Your task to perform on an android device: set the timer Image 0: 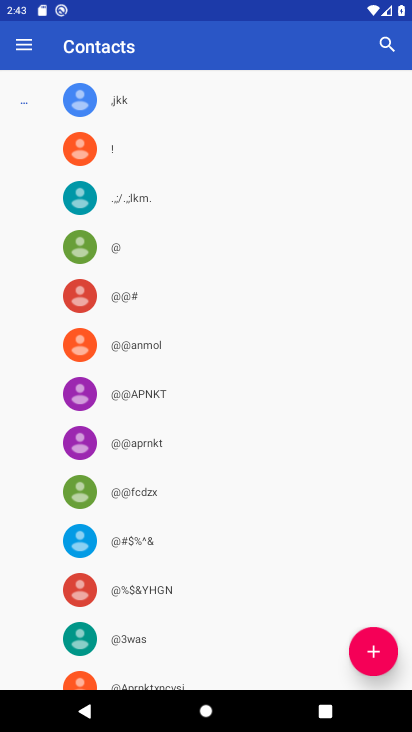
Step 0: press home button
Your task to perform on an android device: set the timer Image 1: 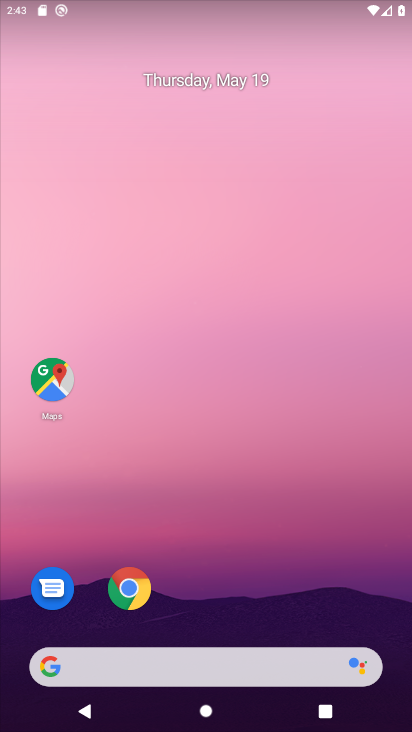
Step 1: drag from (236, 650) to (223, 240)
Your task to perform on an android device: set the timer Image 2: 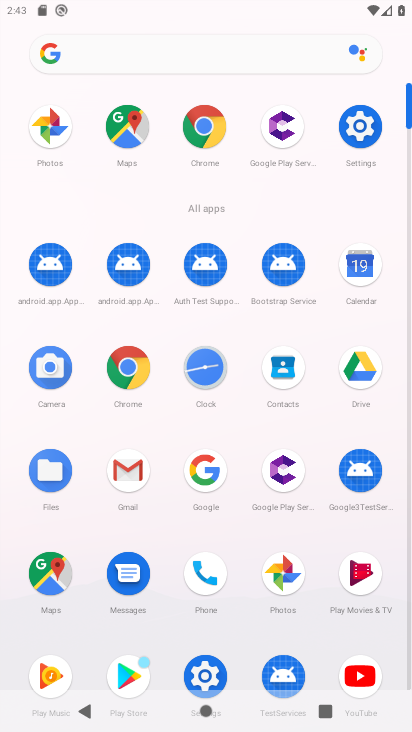
Step 2: click (207, 364)
Your task to perform on an android device: set the timer Image 3: 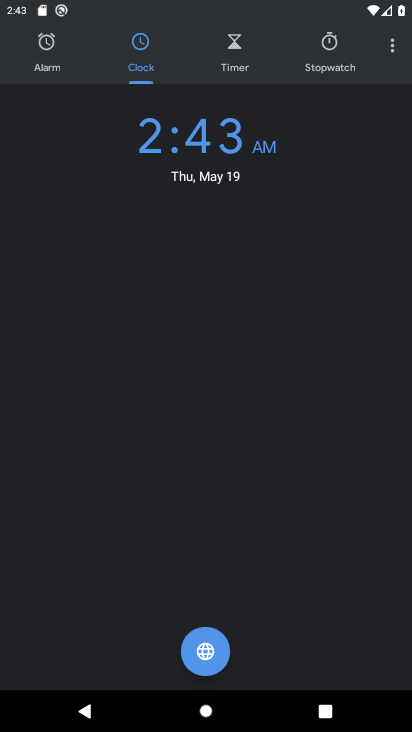
Step 3: click (229, 45)
Your task to perform on an android device: set the timer Image 4: 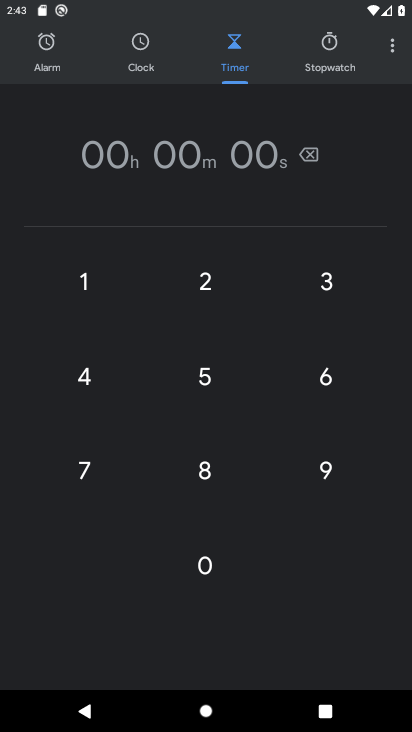
Step 4: click (205, 276)
Your task to perform on an android device: set the timer Image 5: 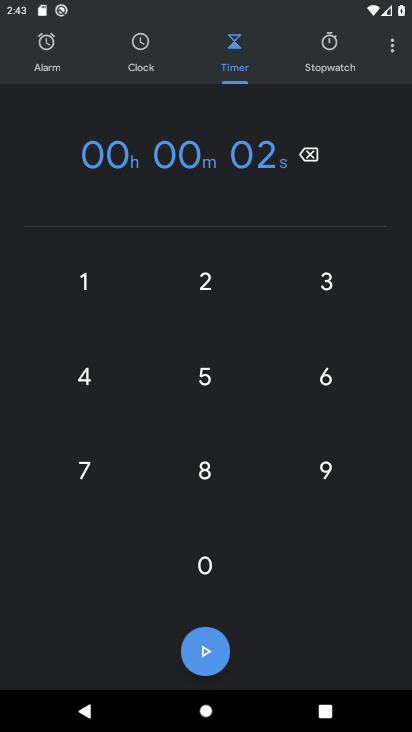
Step 5: click (208, 283)
Your task to perform on an android device: set the timer Image 6: 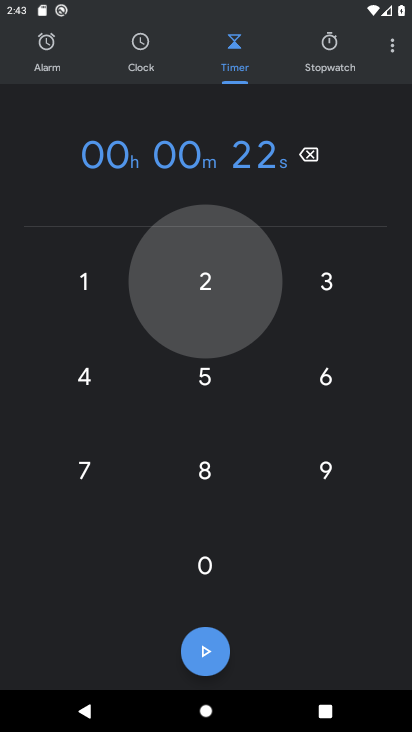
Step 6: click (208, 283)
Your task to perform on an android device: set the timer Image 7: 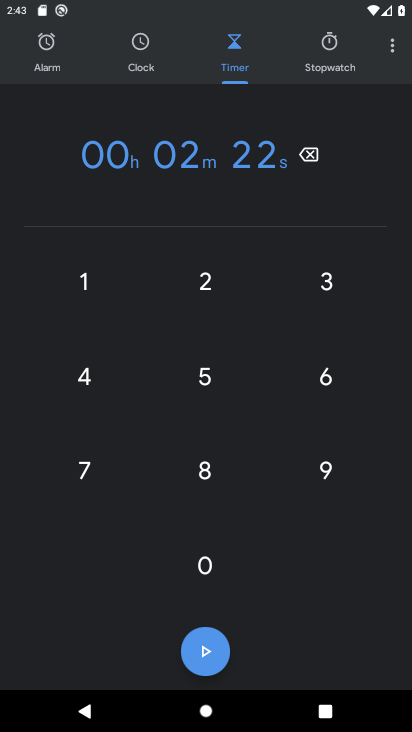
Step 7: click (205, 263)
Your task to perform on an android device: set the timer Image 8: 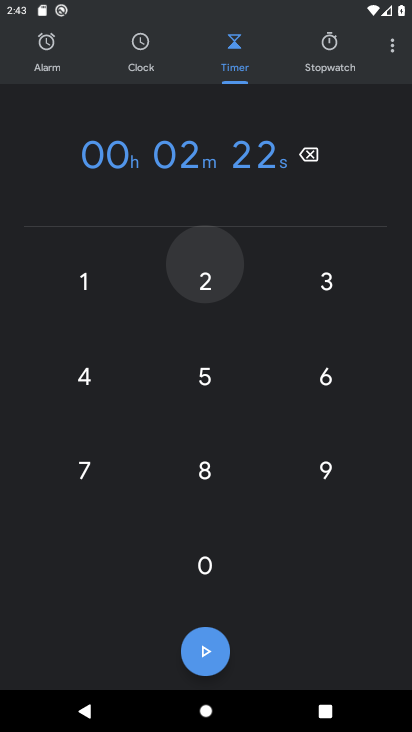
Step 8: click (205, 263)
Your task to perform on an android device: set the timer Image 9: 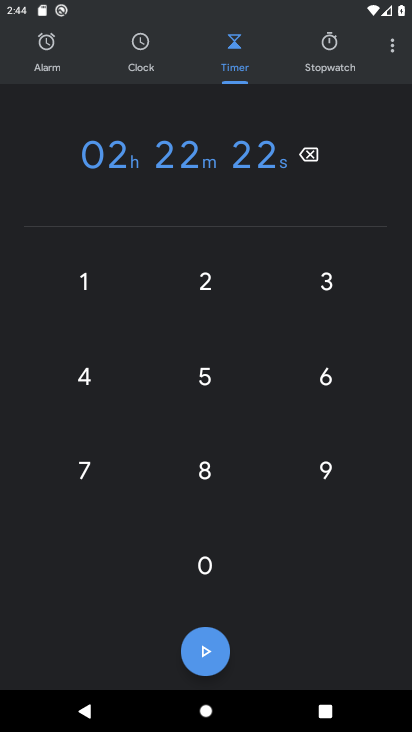
Step 9: click (198, 651)
Your task to perform on an android device: set the timer Image 10: 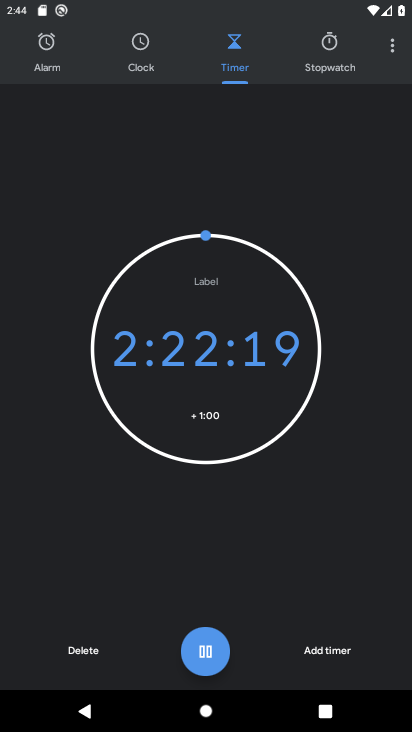
Step 10: task complete